Your task to perform on an android device: Show me recent news Image 0: 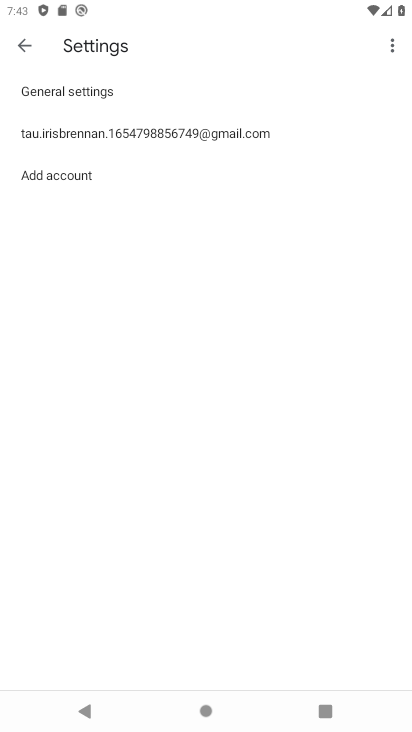
Step 0: press home button
Your task to perform on an android device: Show me recent news Image 1: 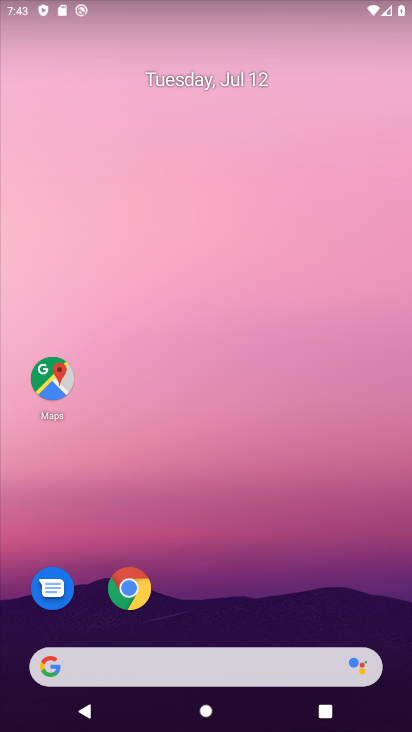
Step 1: drag from (230, 517) to (175, 0)
Your task to perform on an android device: Show me recent news Image 2: 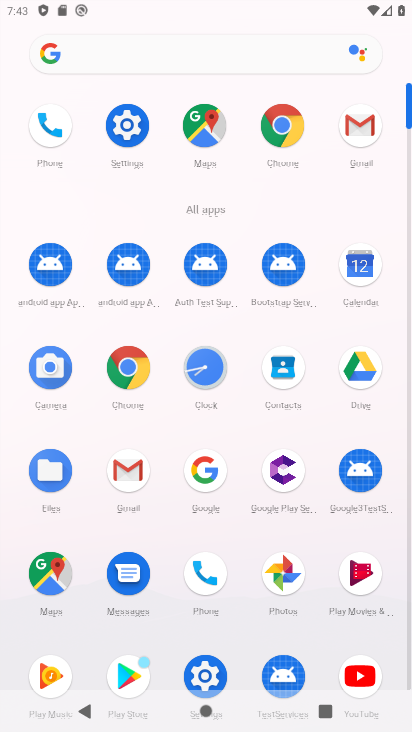
Step 2: click (146, 390)
Your task to perform on an android device: Show me recent news Image 3: 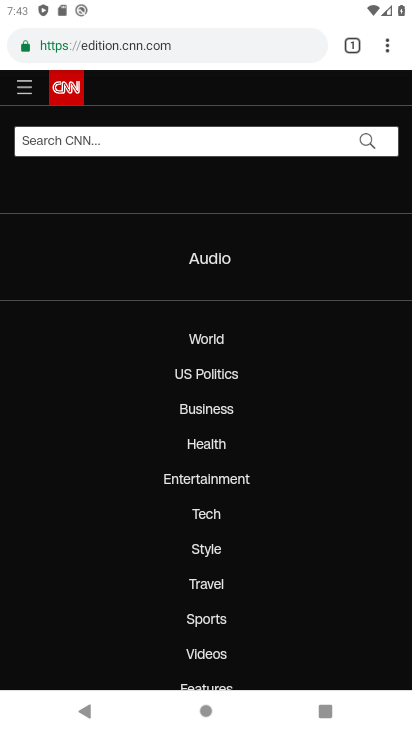
Step 3: task complete